Your task to perform on an android device: delete location history Image 0: 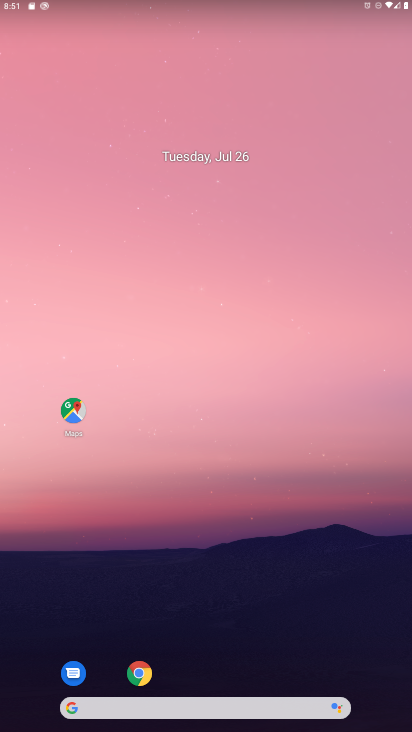
Step 0: drag from (350, 666) to (168, 45)
Your task to perform on an android device: delete location history Image 1: 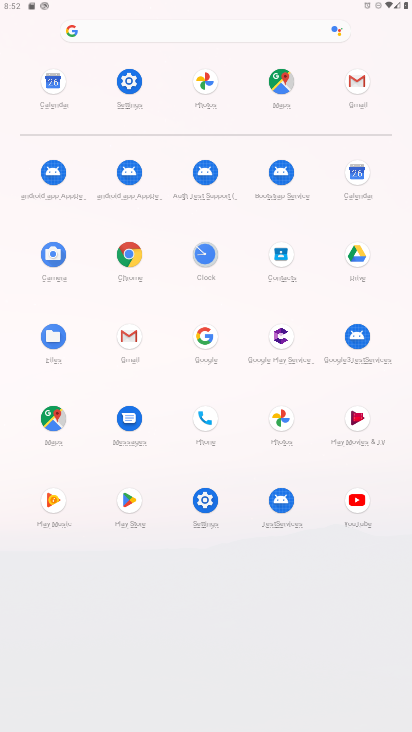
Step 1: click (208, 503)
Your task to perform on an android device: delete location history Image 2: 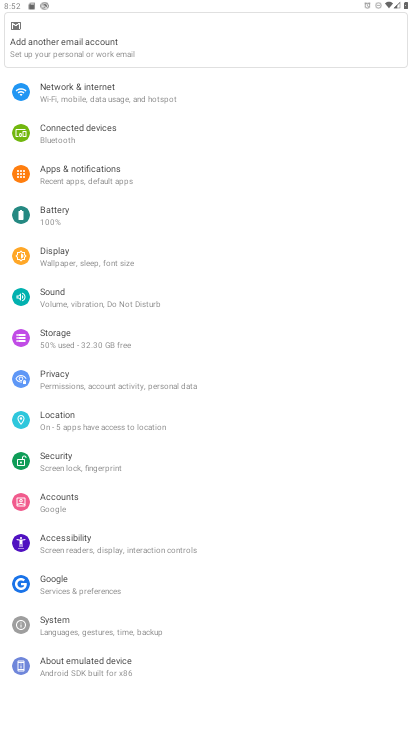
Step 2: click (71, 418)
Your task to perform on an android device: delete location history Image 3: 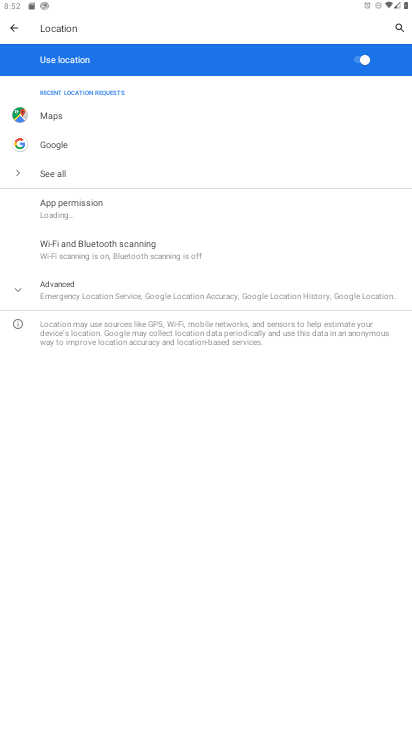
Step 3: task complete